Your task to perform on an android device: Go to location settings Image 0: 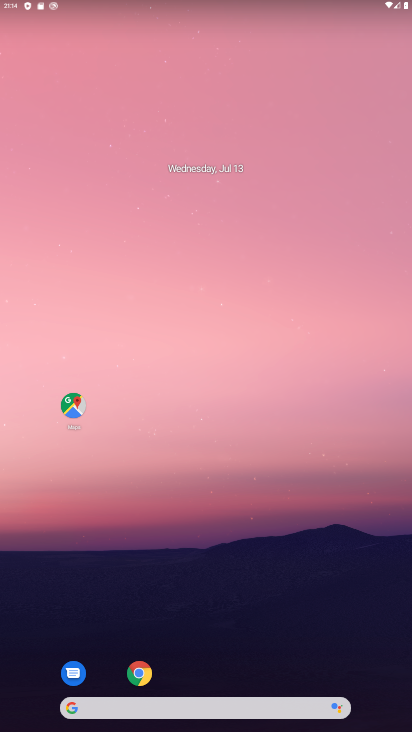
Step 0: drag from (201, 664) to (204, 61)
Your task to perform on an android device: Go to location settings Image 1: 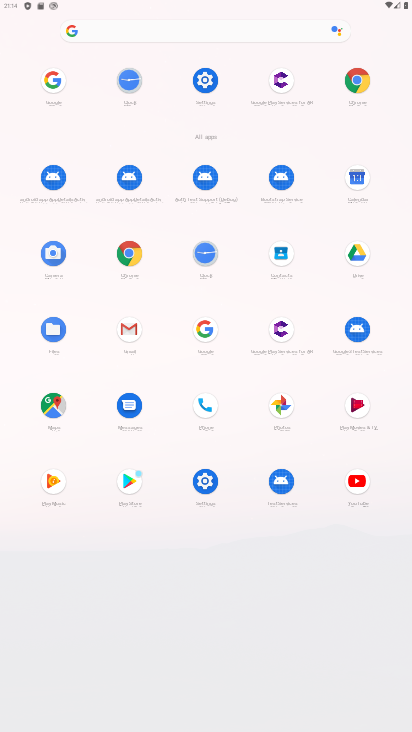
Step 1: click (216, 79)
Your task to perform on an android device: Go to location settings Image 2: 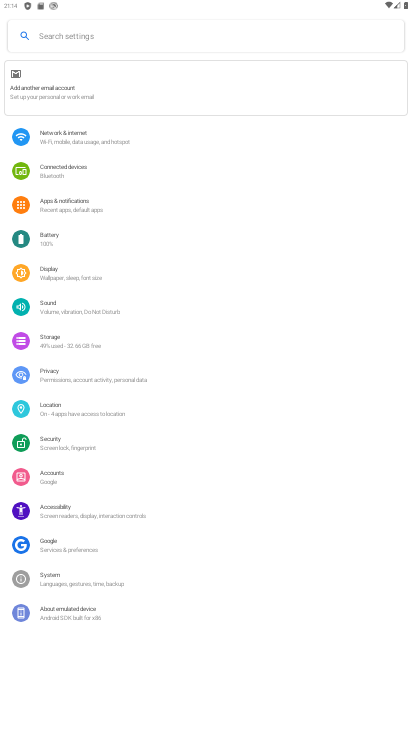
Step 2: click (95, 407)
Your task to perform on an android device: Go to location settings Image 3: 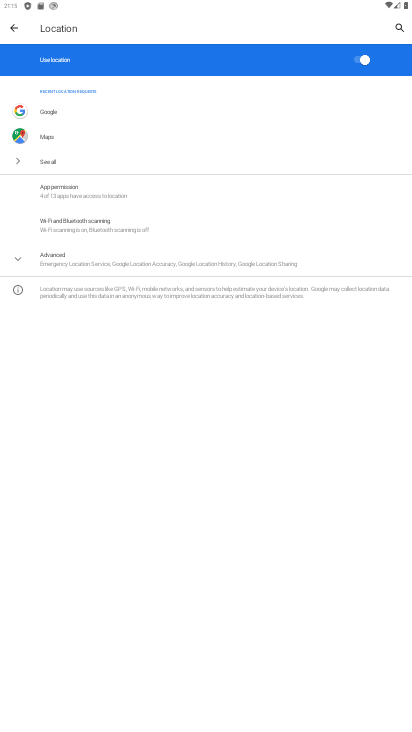
Step 3: task complete